Your task to perform on an android device: What's the weather going to be this weekend? Image 0: 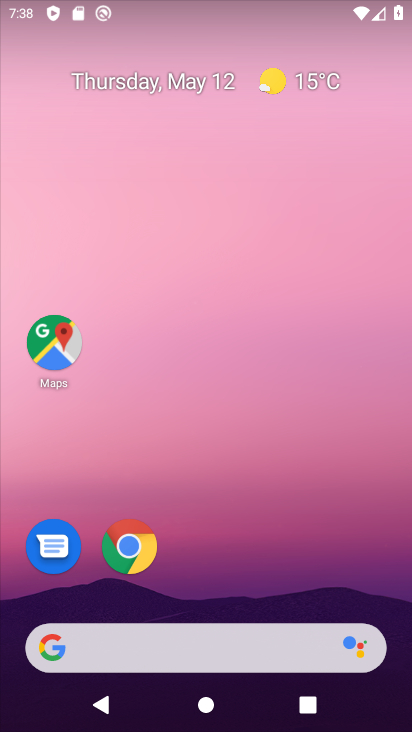
Step 0: click (302, 75)
Your task to perform on an android device: What's the weather going to be this weekend? Image 1: 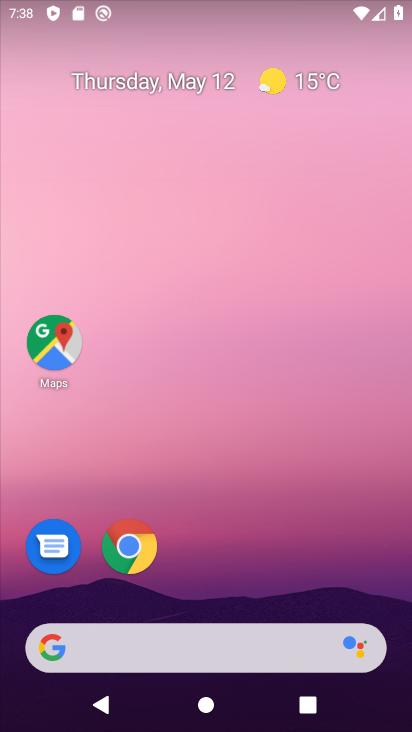
Step 1: click (317, 79)
Your task to perform on an android device: What's the weather going to be this weekend? Image 2: 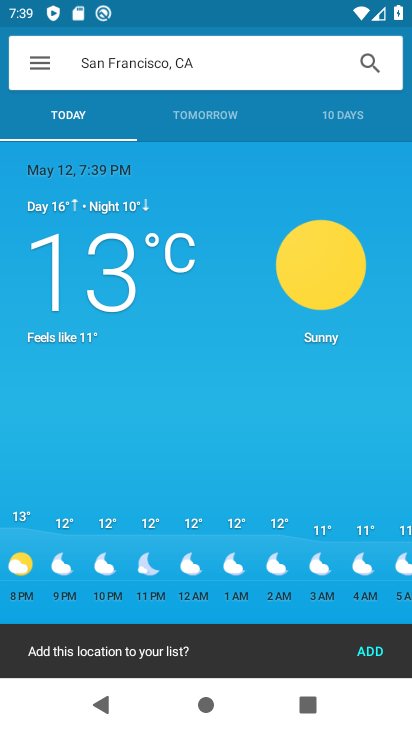
Step 2: click (335, 112)
Your task to perform on an android device: What's the weather going to be this weekend? Image 3: 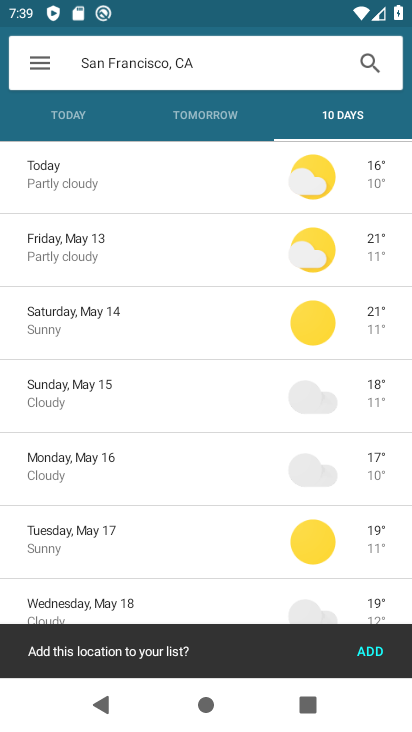
Step 3: click (136, 332)
Your task to perform on an android device: What's the weather going to be this weekend? Image 4: 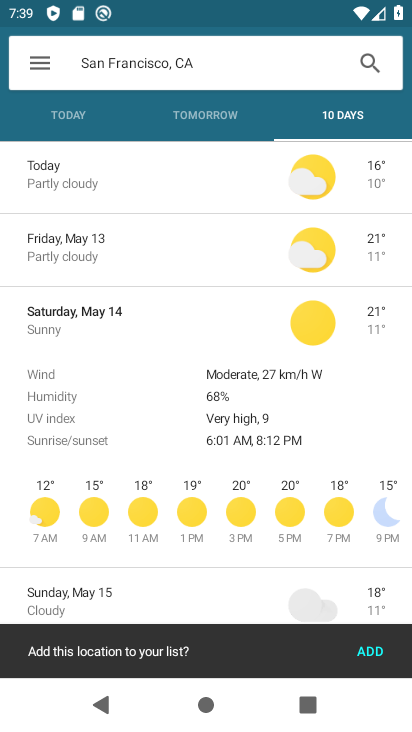
Step 4: task complete